Your task to perform on an android device: View the shopping cart on ebay.com. Search for bose quietcomfort 35 on ebay.com, select the first entry, add it to the cart, then select checkout. Image 0: 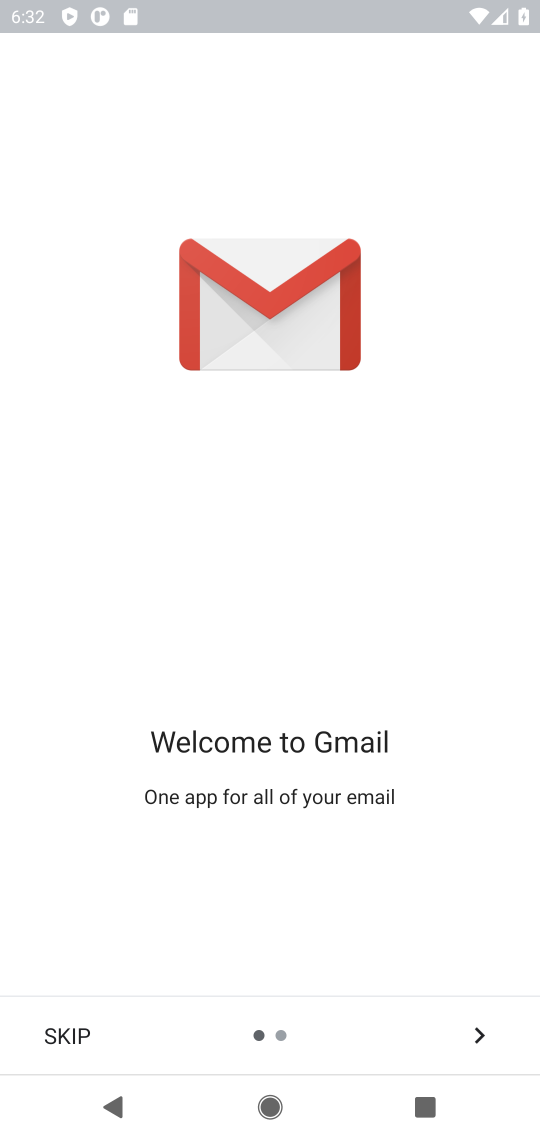
Step 0: press home button
Your task to perform on an android device: View the shopping cart on ebay.com. Search for bose quietcomfort 35 on ebay.com, select the first entry, add it to the cart, then select checkout. Image 1: 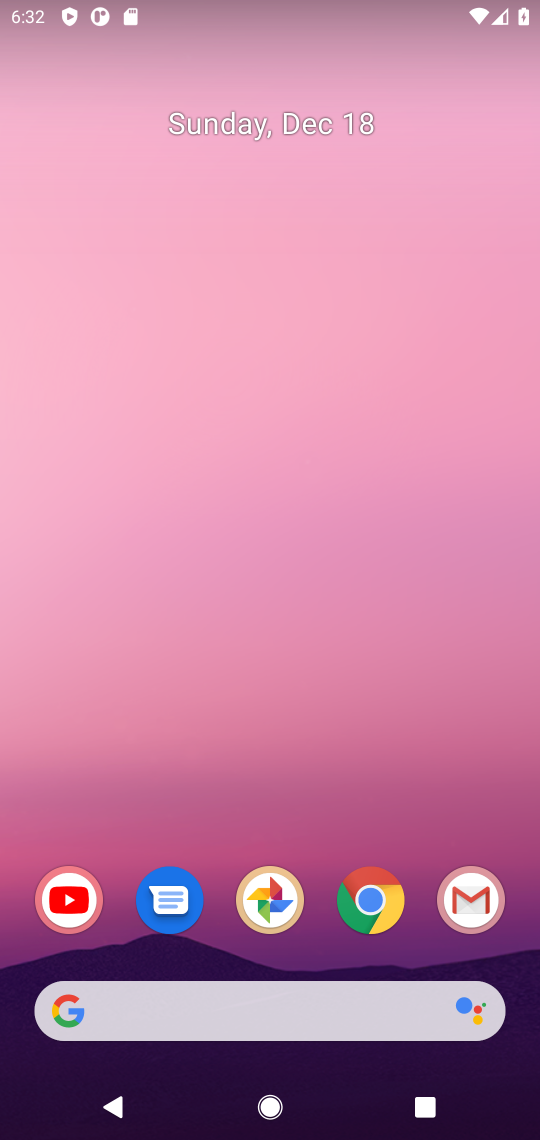
Step 1: click (370, 886)
Your task to perform on an android device: View the shopping cart on ebay.com. Search for bose quietcomfort 35 on ebay.com, select the first entry, add it to the cart, then select checkout. Image 2: 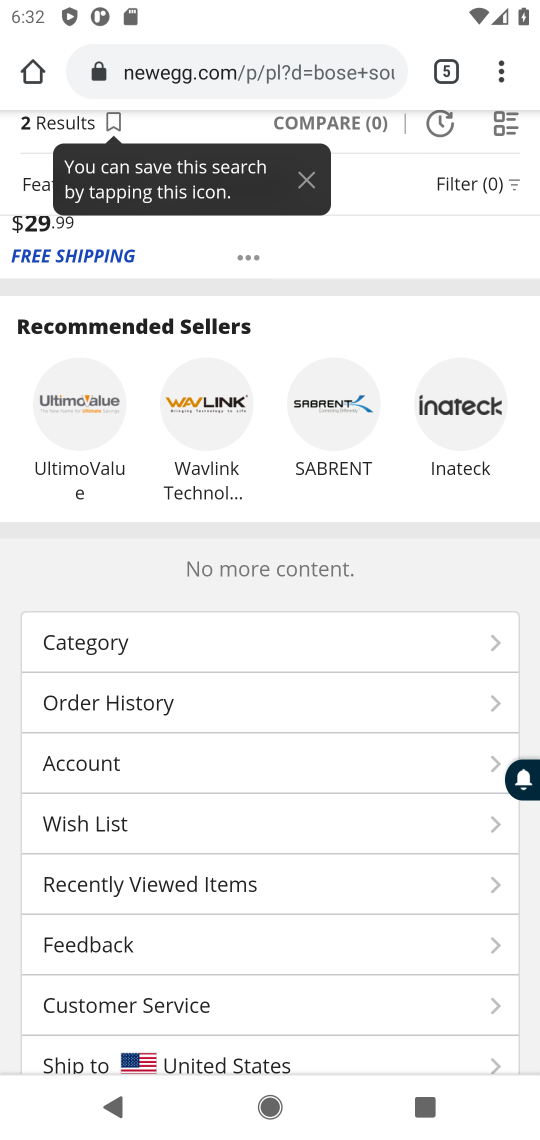
Step 2: click (452, 66)
Your task to perform on an android device: View the shopping cart on ebay.com. Search for bose quietcomfort 35 on ebay.com, select the first entry, add it to the cart, then select checkout. Image 3: 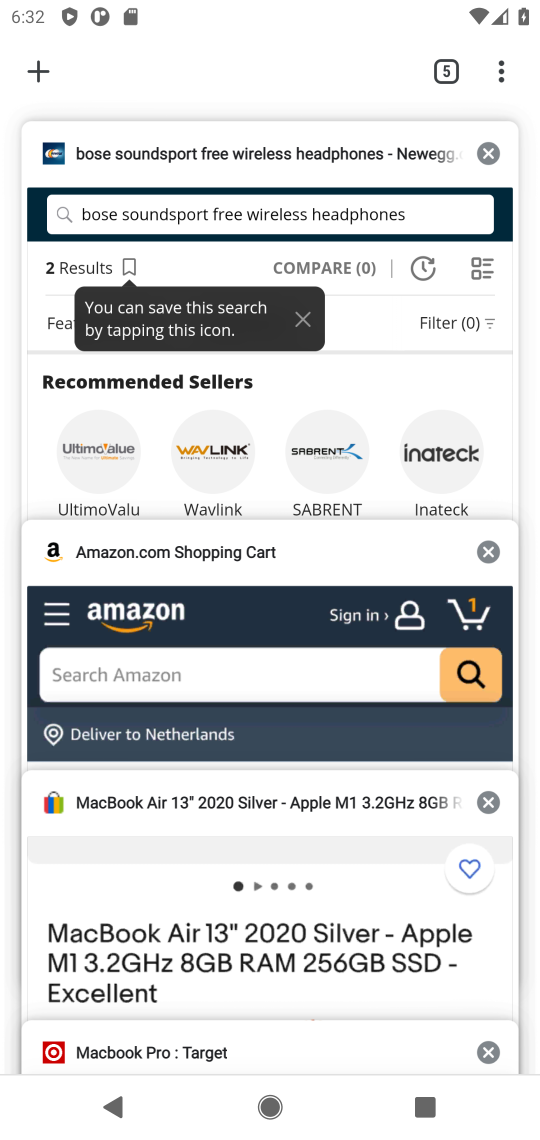
Step 3: click (131, 923)
Your task to perform on an android device: View the shopping cart on ebay.com. Search for bose quietcomfort 35 on ebay.com, select the first entry, add it to the cart, then select checkout. Image 4: 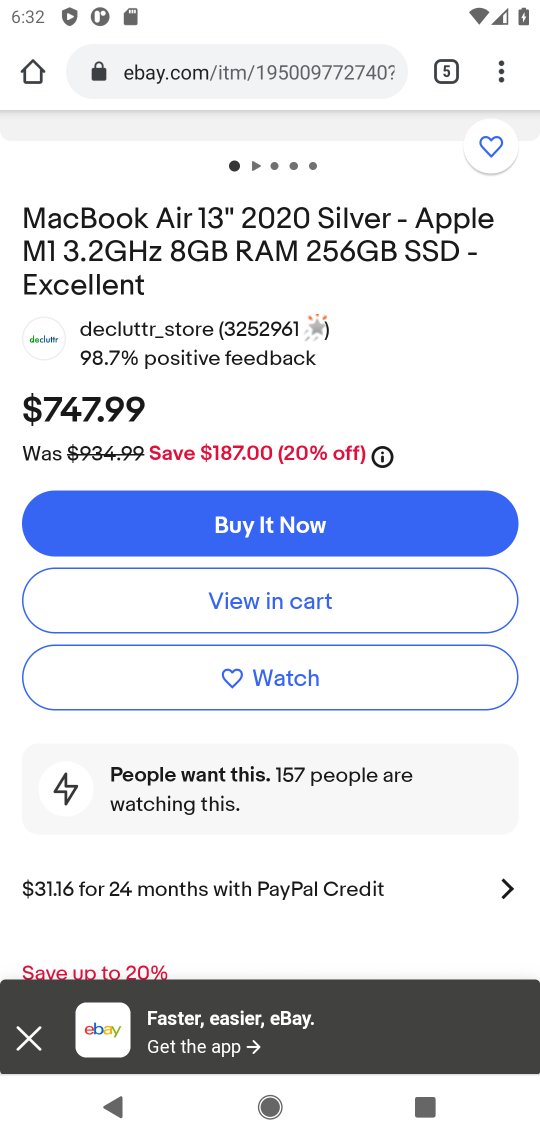
Step 4: drag from (422, 208) to (138, 1131)
Your task to perform on an android device: View the shopping cart on ebay.com. Search for bose quietcomfort 35 on ebay.com, select the first entry, add it to the cart, then select checkout. Image 5: 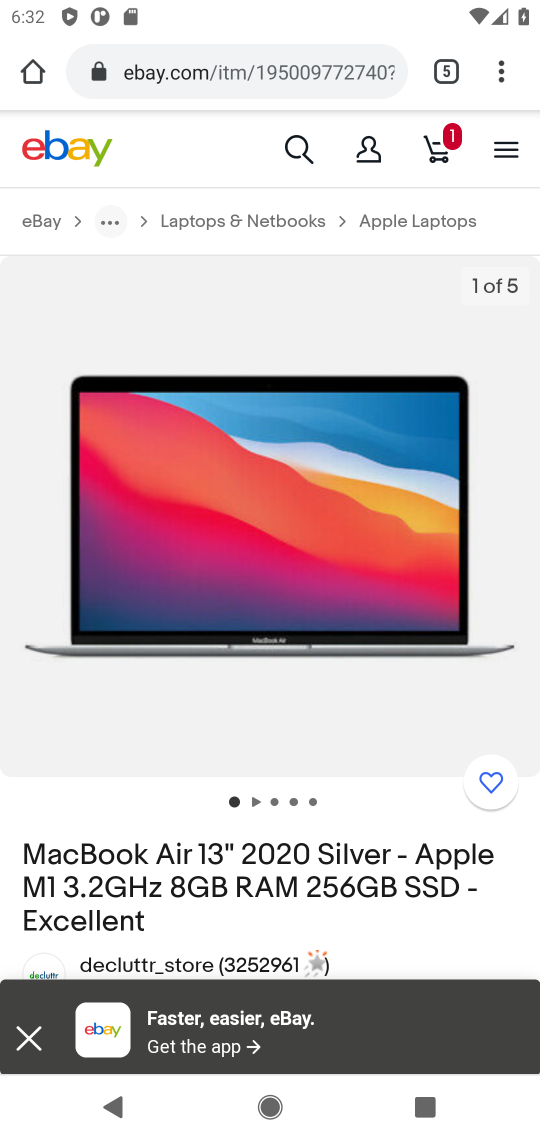
Step 5: click (297, 151)
Your task to perform on an android device: View the shopping cart on ebay.com. Search for bose quietcomfort 35 on ebay.com, select the first entry, add it to the cart, then select checkout. Image 6: 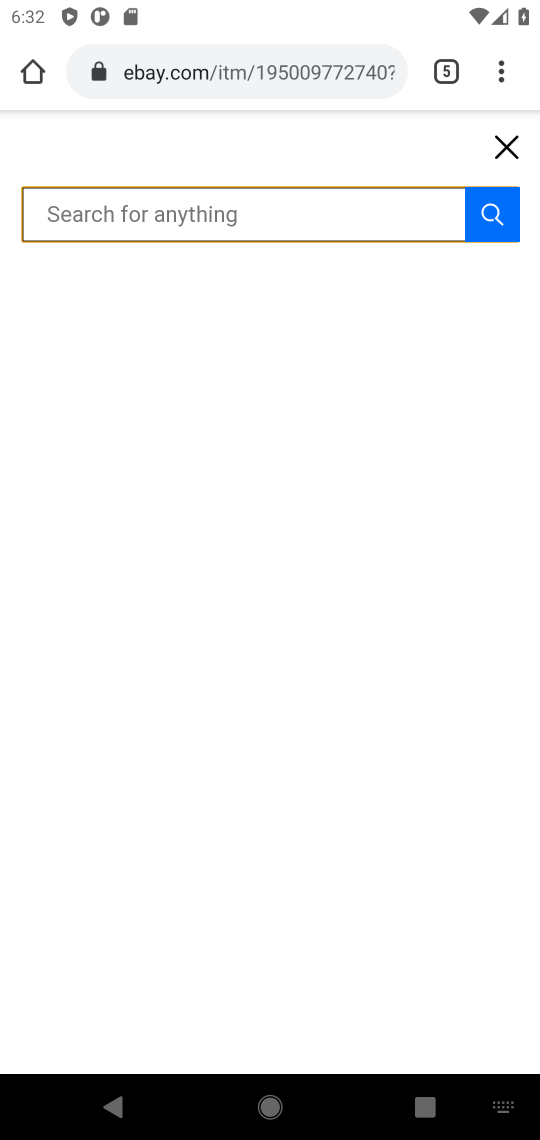
Step 6: type "bose quietcomfort 35"
Your task to perform on an android device: View the shopping cart on ebay.com. Search for bose quietcomfort 35 on ebay.com, select the first entry, add it to the cart, then select checkout. Image 7: 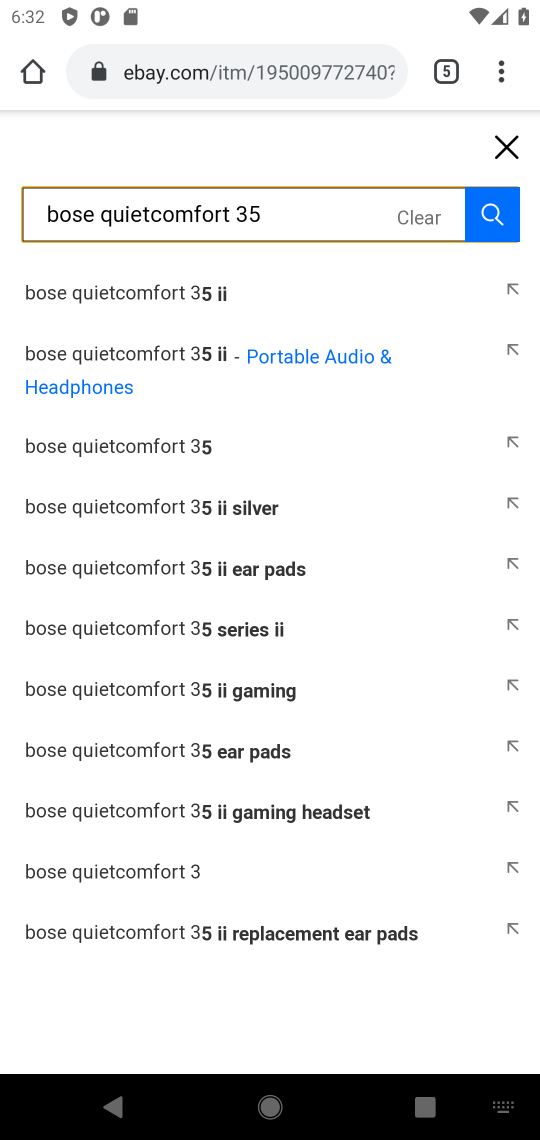
Step 7: click (158, 349)
Your task to perform on an android device: View the shopping cart on ebay.com. Search for bose quietcomfort 35 on ebay.com, select the first entry, add it to the cart, then select checkout. Image 8: 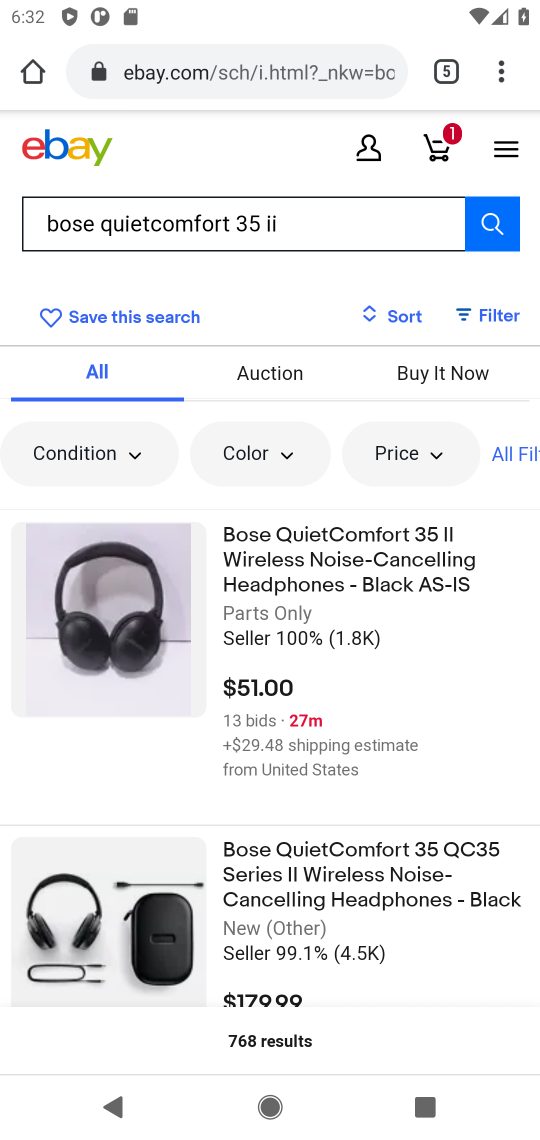
Step 8: click (370, 562)
Your task to perform on an android device: View the shopping cart on ebay.com. Search for bose quietcomfort 35 on ebay.com, select the first entry, add it to the cart, then select checkout. Image 9: 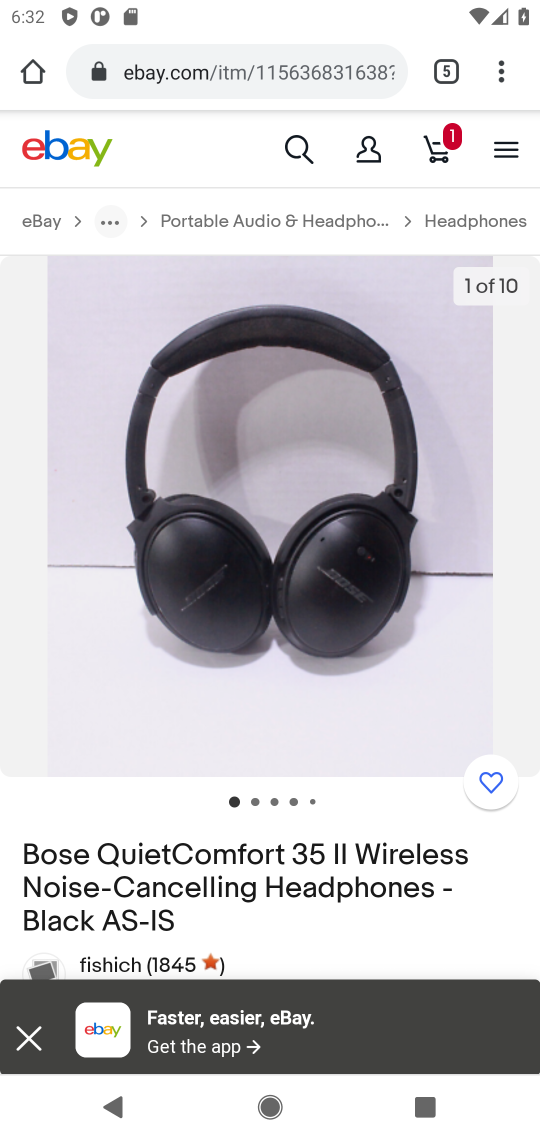
Step 9: drag from (276, 986) to (530, 341)
Your task to perform on an android device: View the shopping cart on ebay.com. Search for bose quietcomfort 35 on ebay.com, select the first entry, add it to the cart, then select checkout. Image 10: 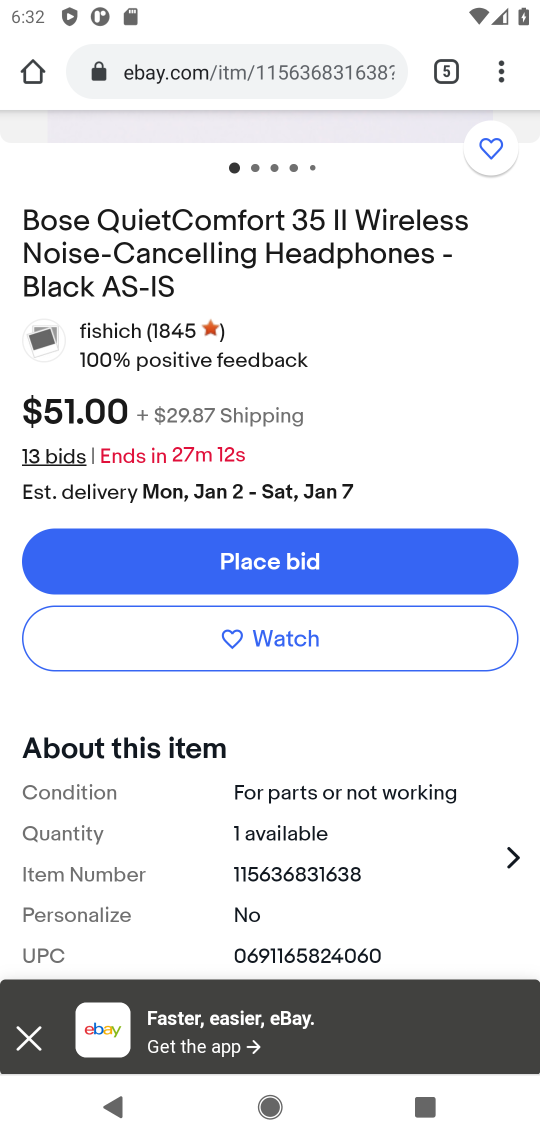
Step 10: press back button
Your task to perform on an android device: View the shopping cart on ebay.com. Search for bose quietcomfort 35 on ebay.com, select the first entry, add it to the cart, then select checkout. Image 11: 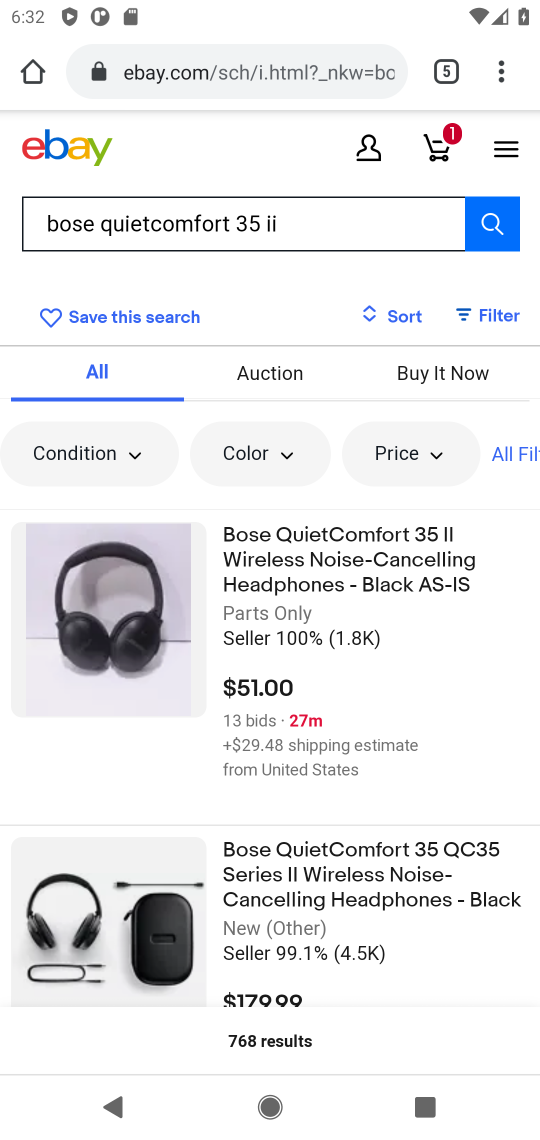
Step 11: click (311, 888)
Your task to perform on an android device: View the shopping cart on ebay.com. Search for bose quietcomfort 35 on ebay.com, select the first entry, add it to the cart, then select checkout. Image 12: 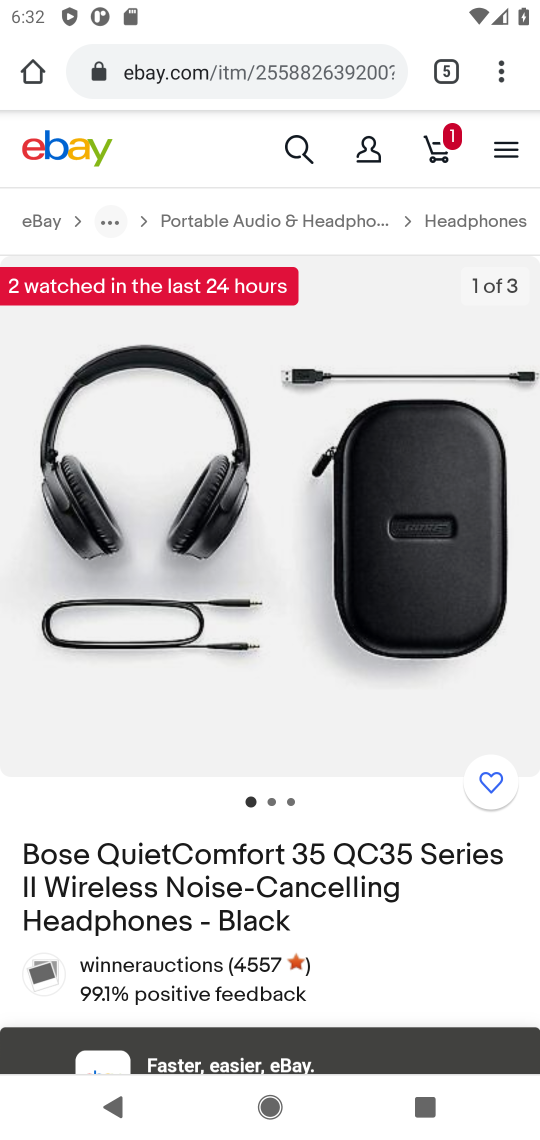
Step 12: drag from (312, 919) to (528, 277)
Your task to perform on an android device: View the shopping cart on ebay.com. Search for bose quietcomfort 35 on ebay.com, select the first entry, add it to the cart, then select checkout. Image 13: 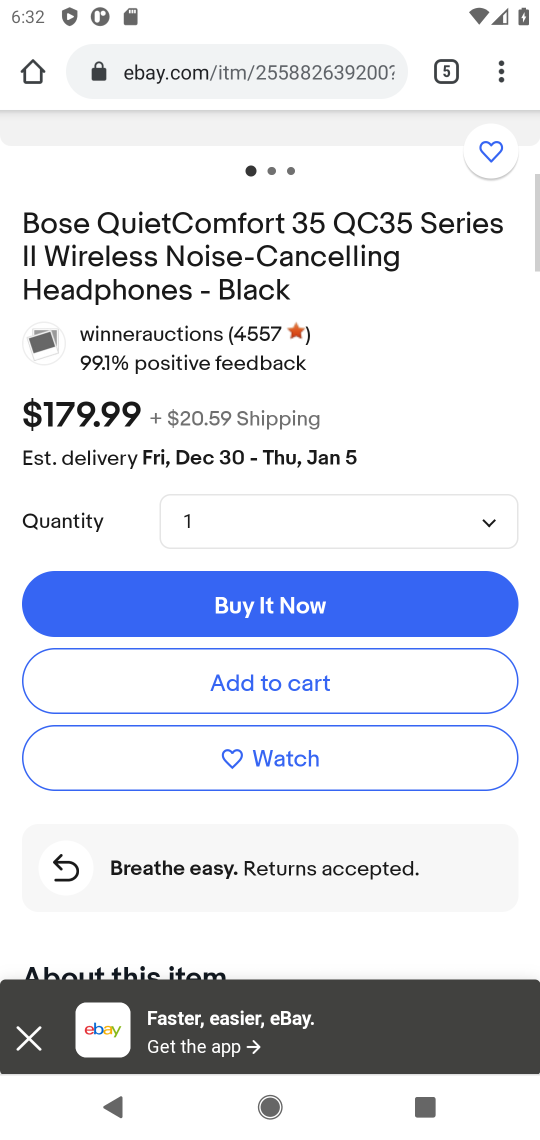
Step 13: click (333, 420)
Your task to perform on an android device: View the shopping cart on ebay.com. Search for bose quietcomfort 35 on ebay.com, select the first entry, add it to the cart, then select checkout. Image 14: 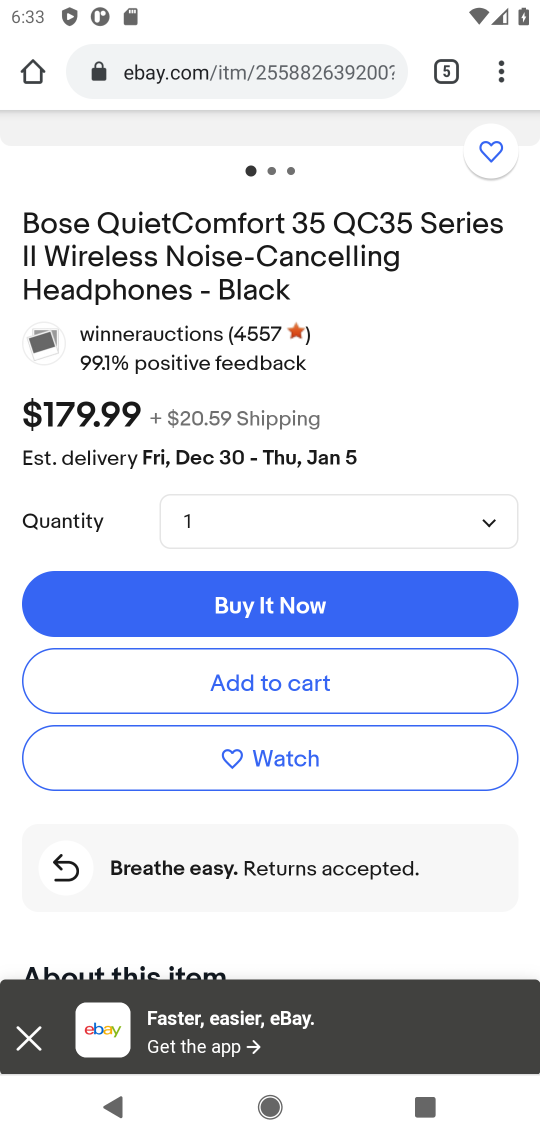
Step 14: click (278, 694)
Your task to perform on an android device: View the shopping cart on ebay.com. Search for bose quietcomfort 35 on ebay.com, select the first entry, add it to the cart, then select checkout. Image 15: 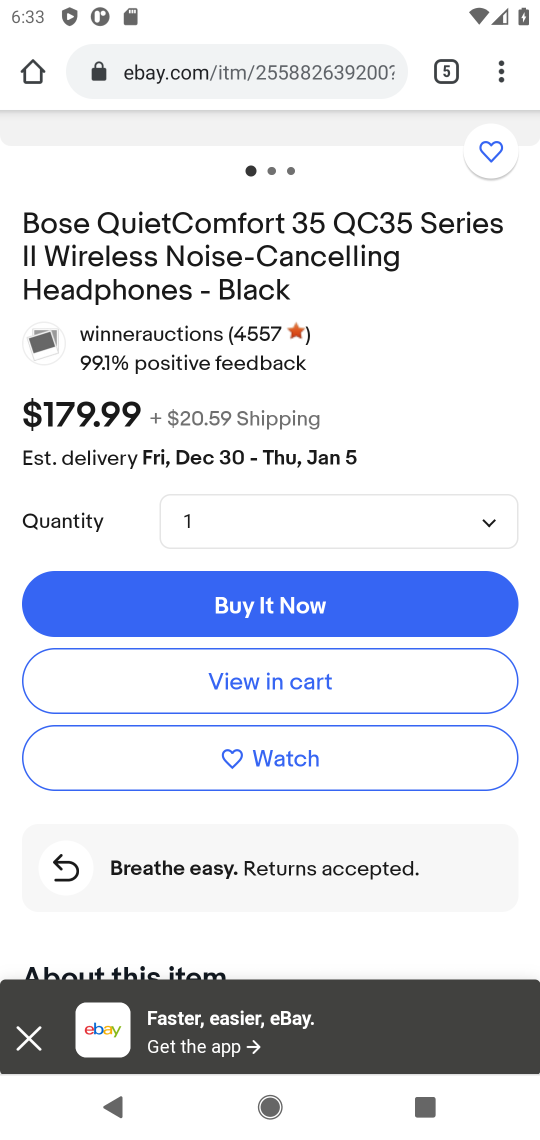
Step 15: task complete